Your task to perform on an android device: Go to Google Image 0: 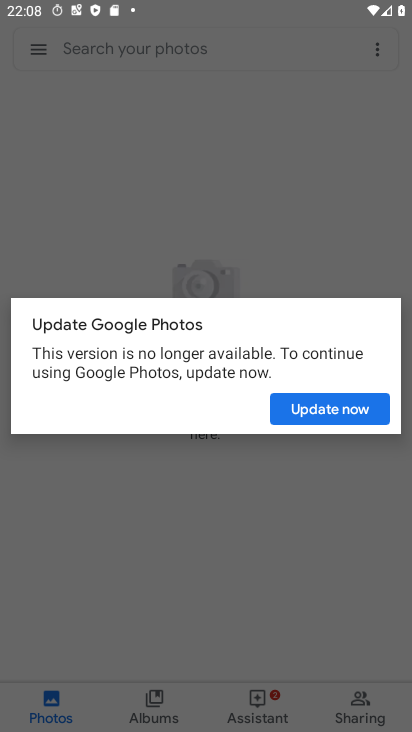
Step 0: press back button
Your task to perform on an android device: Go to Google Image 1: 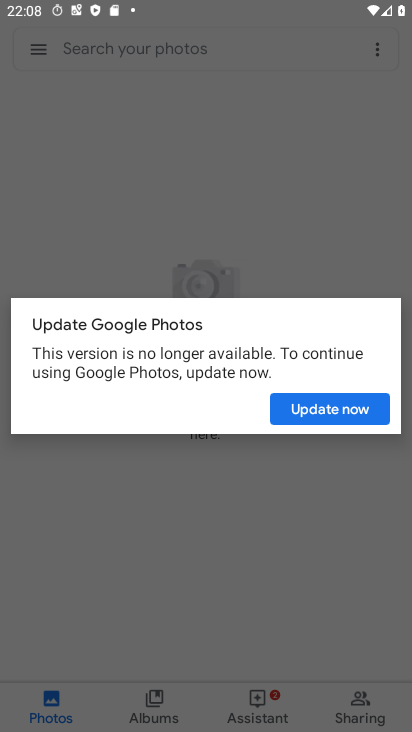
Step 1: press home button
Your task to perform on an android device: Go to Google Image 2: 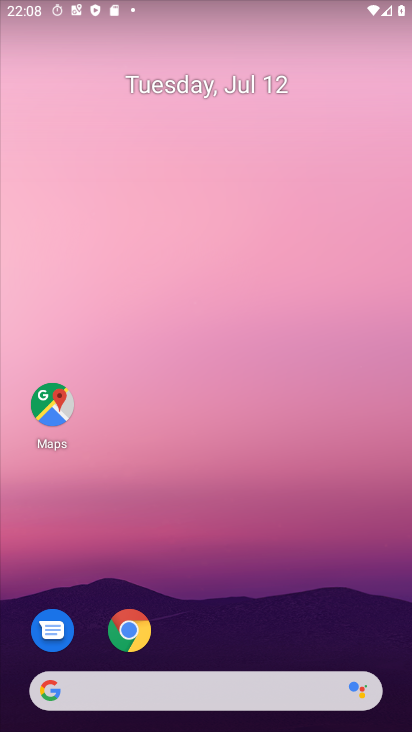
Step 2: drag from (180, 612) to (204, 15)
Your task to perform on an android device: Go to Google Image 3: 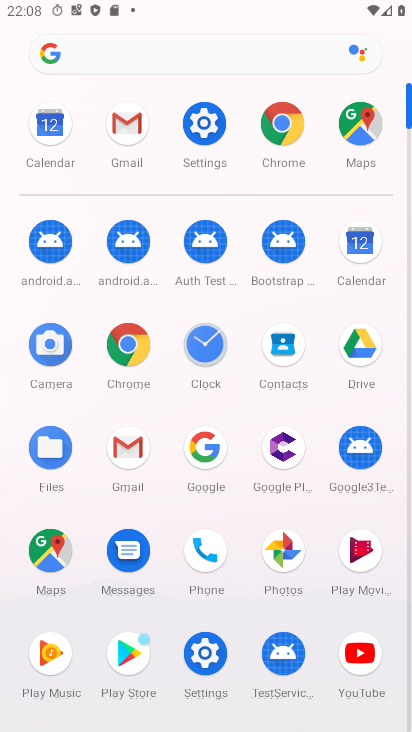
Step 3: click (209, 458)
Your task to perform on an android device: Go to Google Image 4: 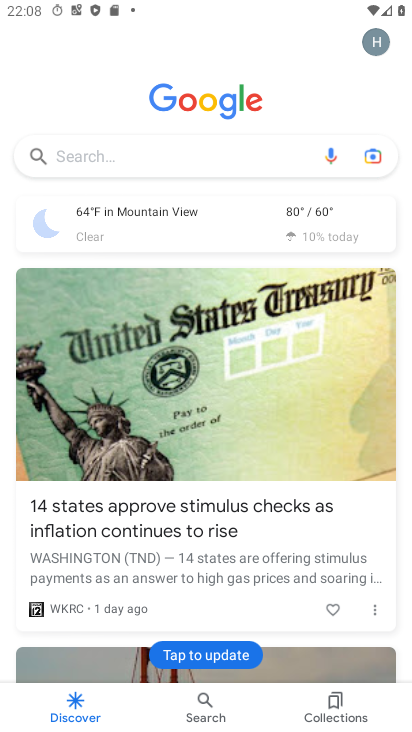
Step 4: task complete